Your task to perform on an android device: Go to battery settings Image 0: 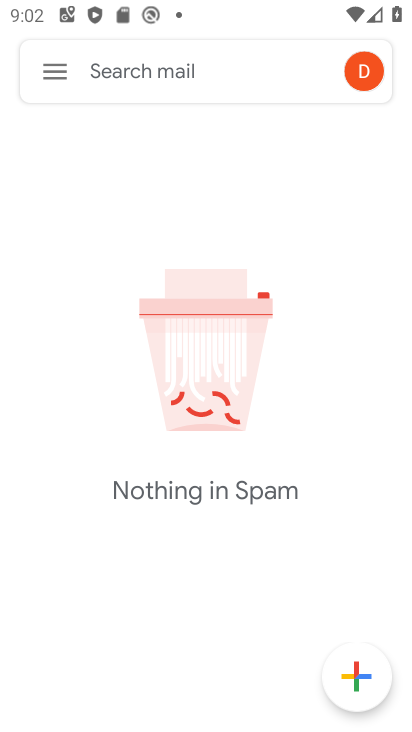
Step 0: press home button
Your task to perform on an android device: Go to battery settings Image 1: 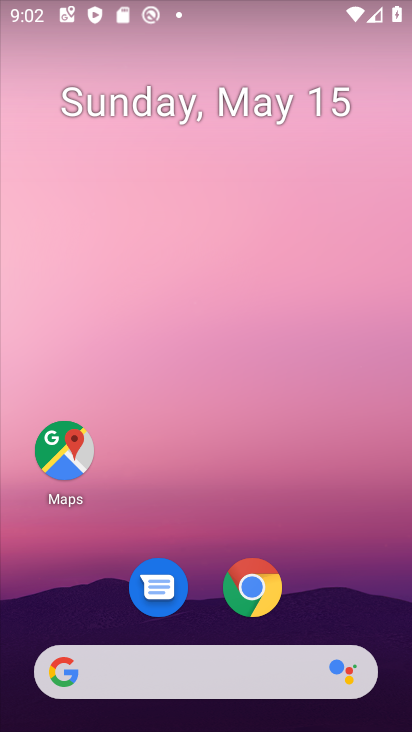
Step 1: drag from (374, 551) to (313, 76)
Your task to perform on an android device: Go to battery settings Image 2: 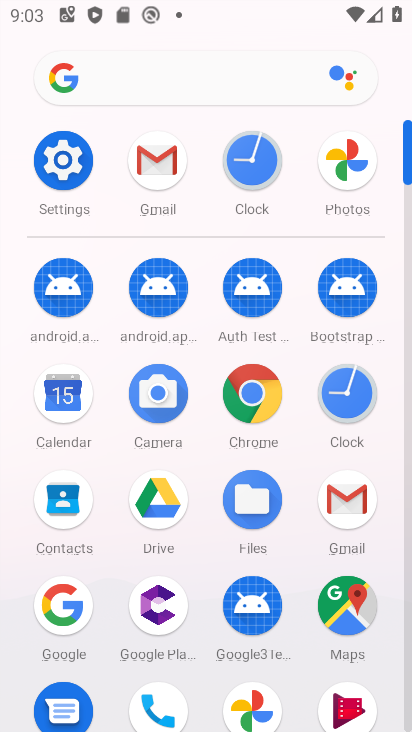
Step 2: click (65, 171)
Your task to perform on an android device: Go to battery settings Image 3: 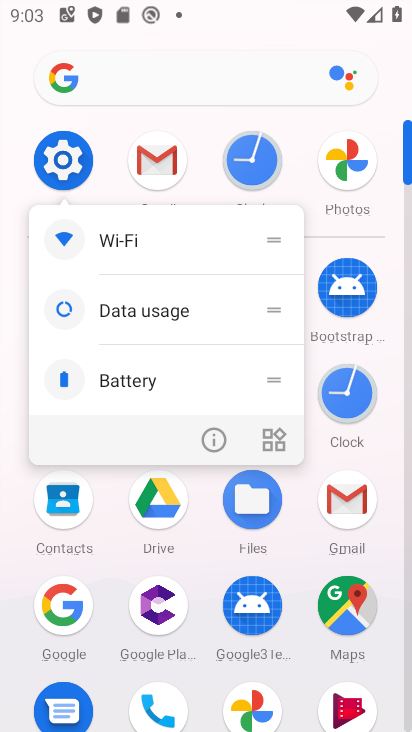
Step 3: click (65, 171)
Your task to perform on an android device: Go to battery settings Image 4: 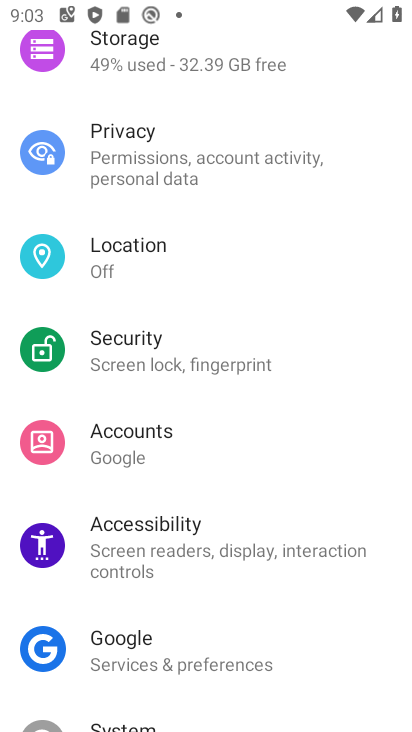
Step 4: drag from (191, 634) to (191, 269)
Your task to perform on an android device: Go to battery settings Image 5: 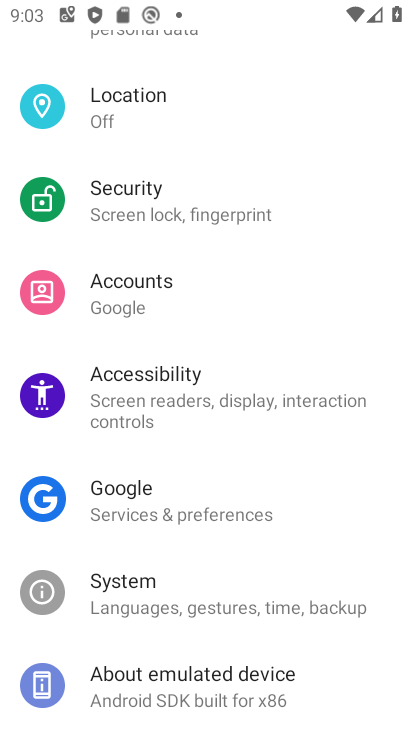
Step 5: drag from (114, 183) to (96, 551)
Your task to perform on an android device: Go to battery settings Image 6: 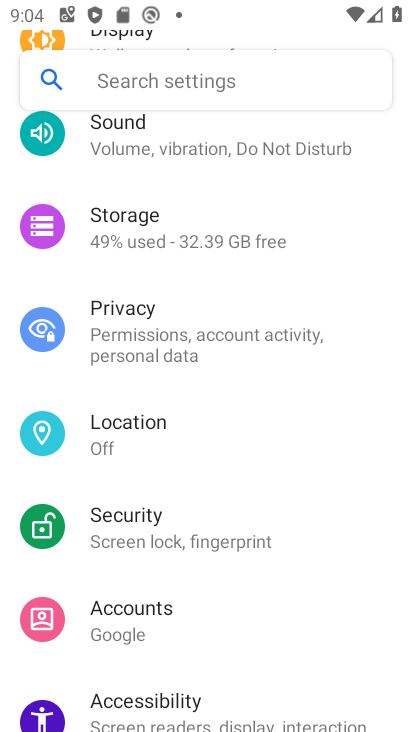
Step 6: drag from (202, 228) to (239, 559)
Your task to perform on an android device: Go to battery settings Image 7: 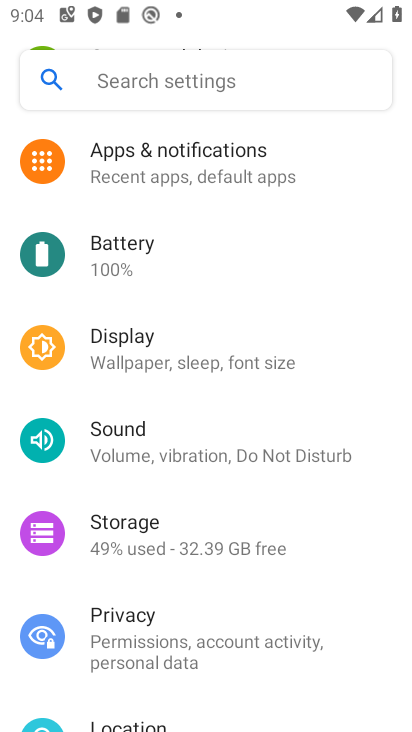
Step 7: click (171, 264)
Your task to perform on an android device: Go to battery settings Image 8: 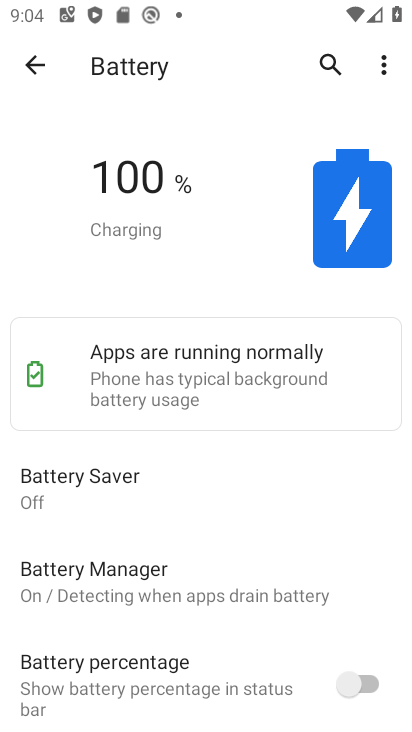
Step 8: task complete